Your task to perform on an android device: Open Reddit.com Image 0: 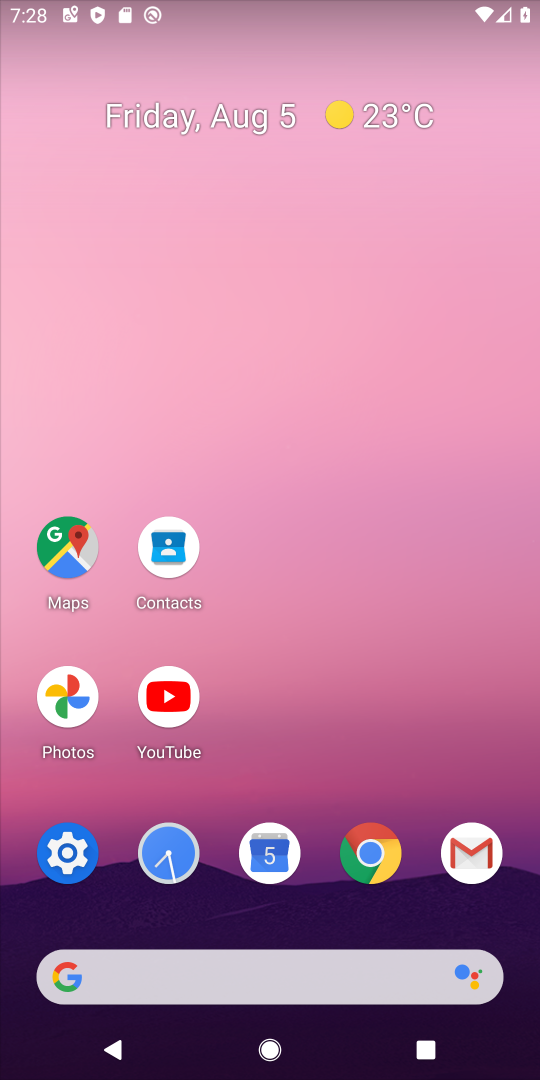
Step 0: click (378, 873)
Your task to perform on an android device: Open Reddit.com Image 1: 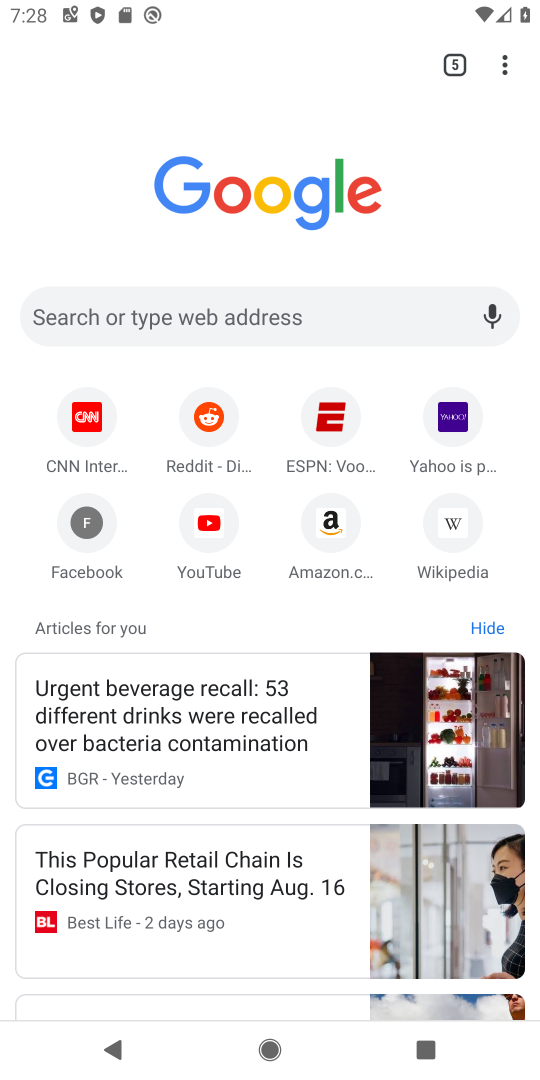
Step 1: click (190, 409)
Your task to perform on an android device: Open Reddit.com Image 2: 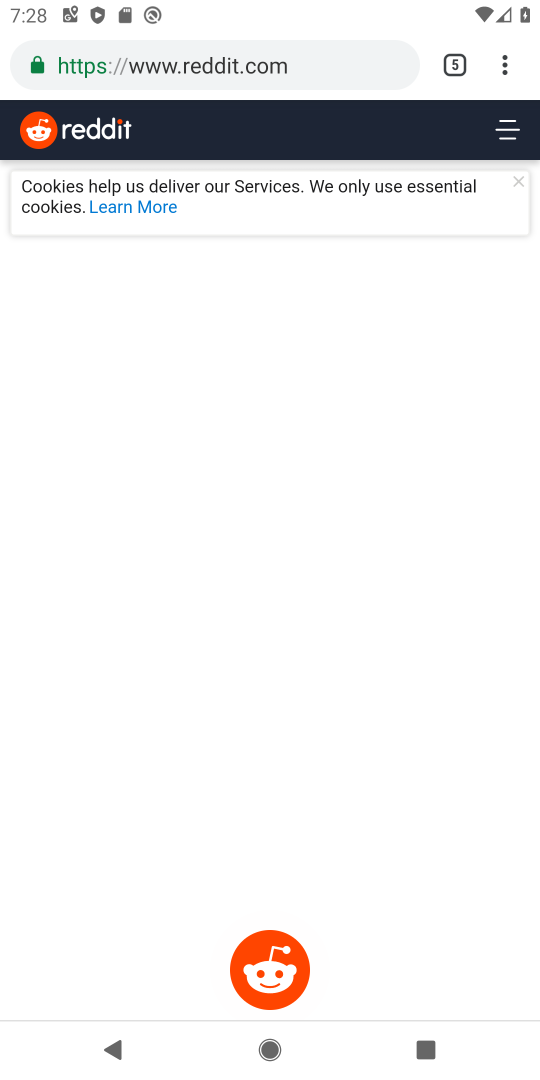
Step 2: click (123, 197)
Your task to perform on an android device: Open Reddit.com Image 3: 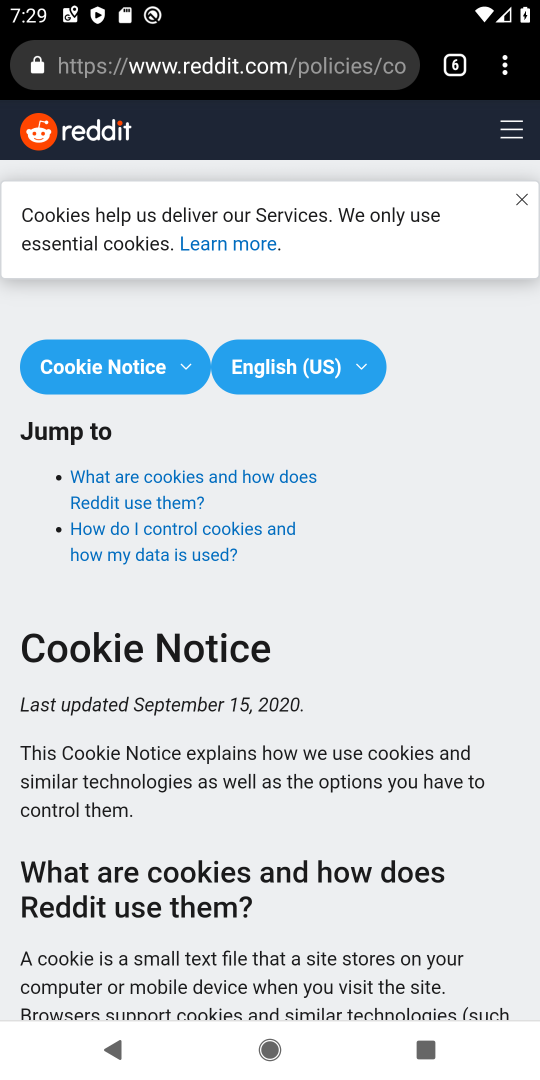
Step 3: task complete